Your task to perform on an android device: Set the phone to "Do not disturb". Image 0: 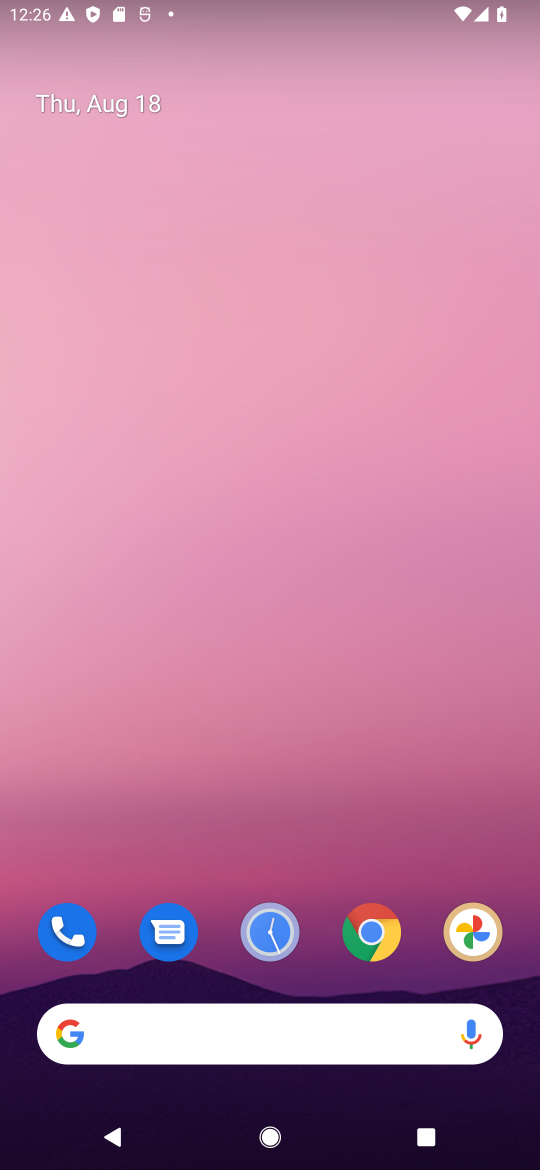
Step 0: drag from (301, 802) to (276, 299)
Your task to perform on an android device: Set the phone to "Do not disturb". Image 1: 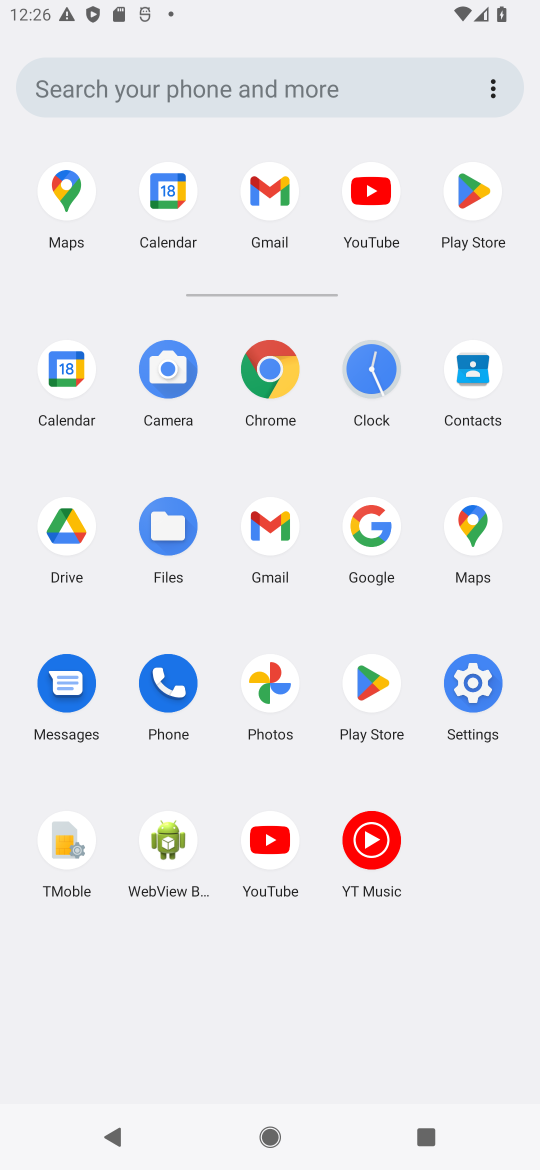
Step 1: click (475, 680)
Your task to perform on an android device: Set the phone to "Do not disturb". Image 2: 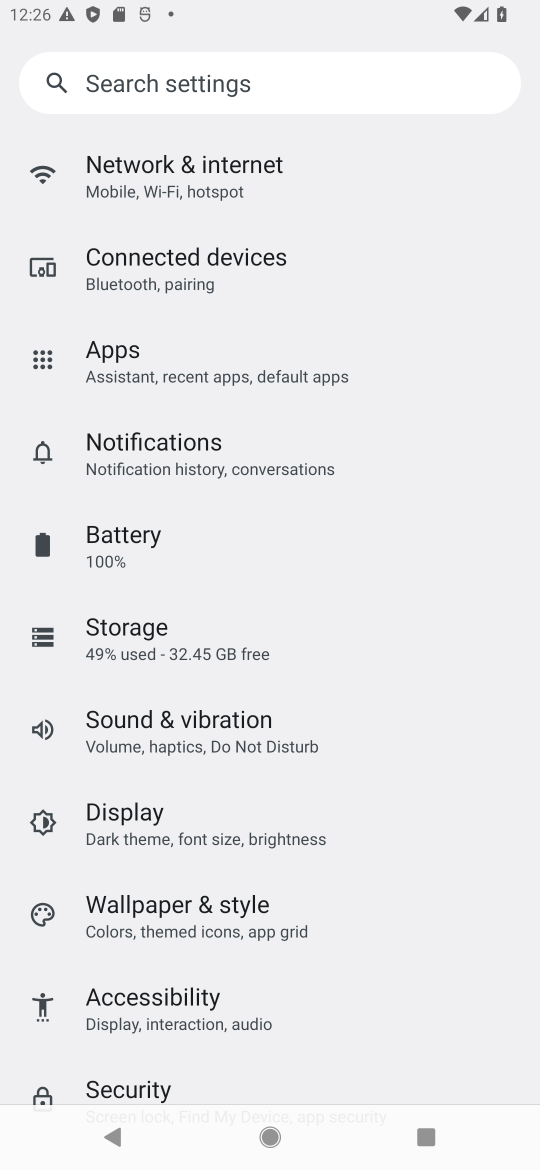
Step 2: drag from (393, 891) to (393, 591)
Your task to perform on an android device: Set the phone to "Do not disturb". Image 3: 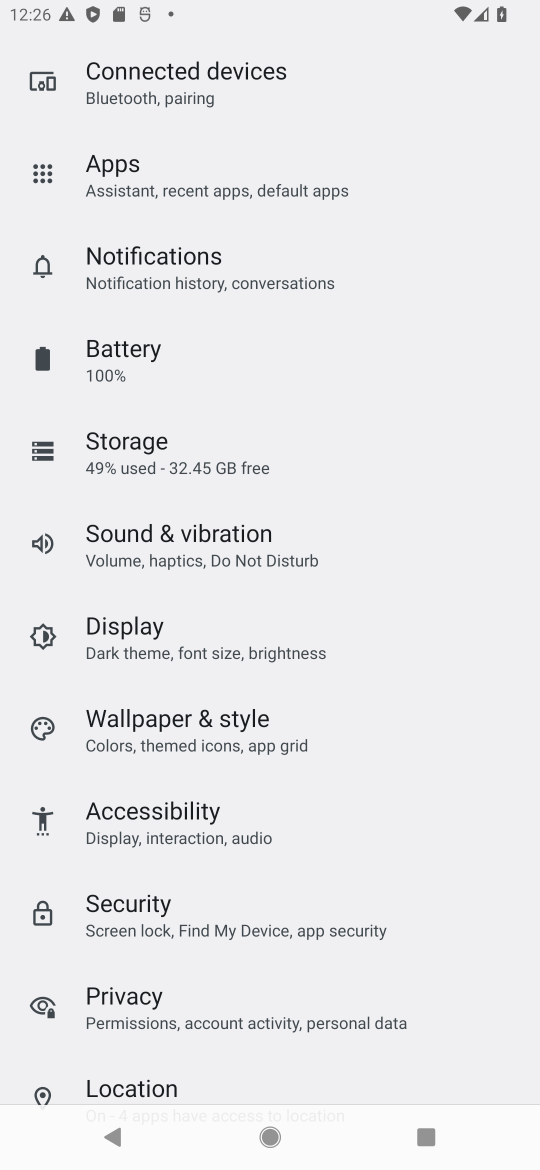
Step 3: click (178, 537)
Your task to perform on an android device: Set the phone to "Do not disturb". Image 4: 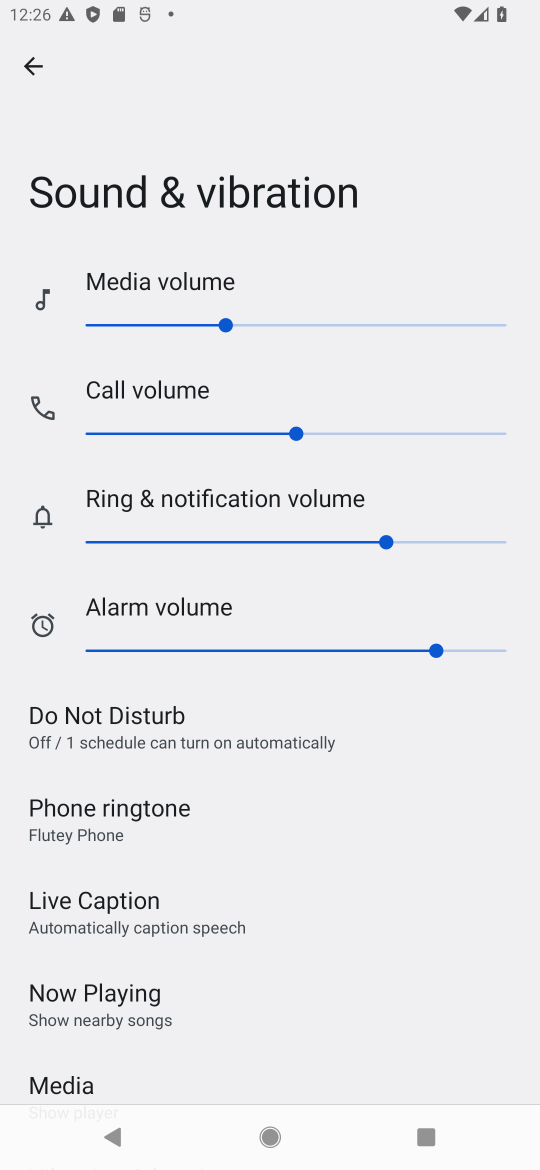
Step 4: click (91, 702)
Your task to perform on an android device: Set the phone to "Do not disturb". Image 5: 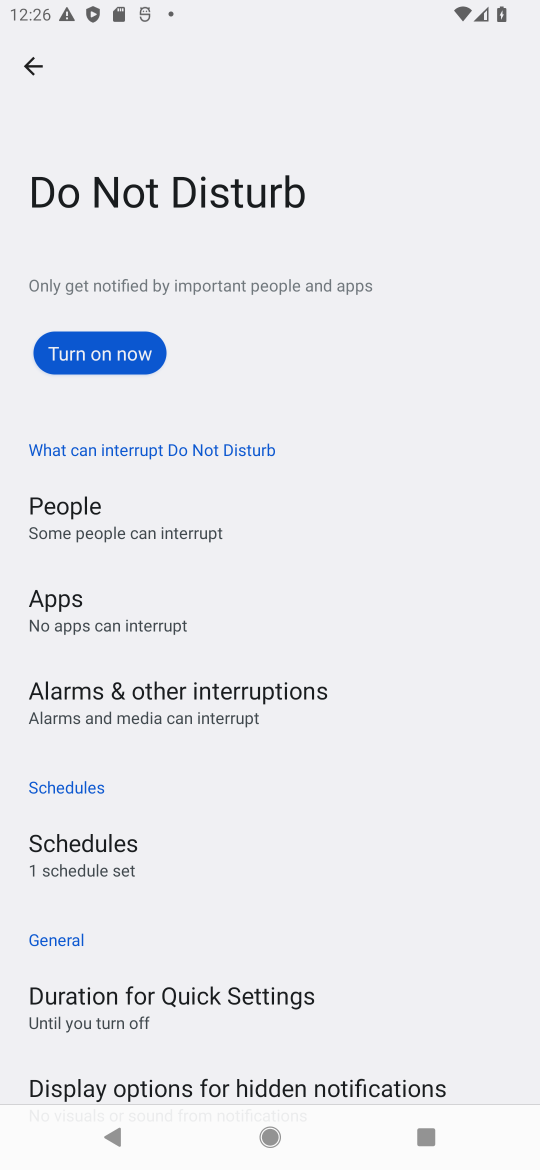
Step 5: click (91, 353)
Your task to perform on an android device: Set the phone to "Do not disturb". Image 6: 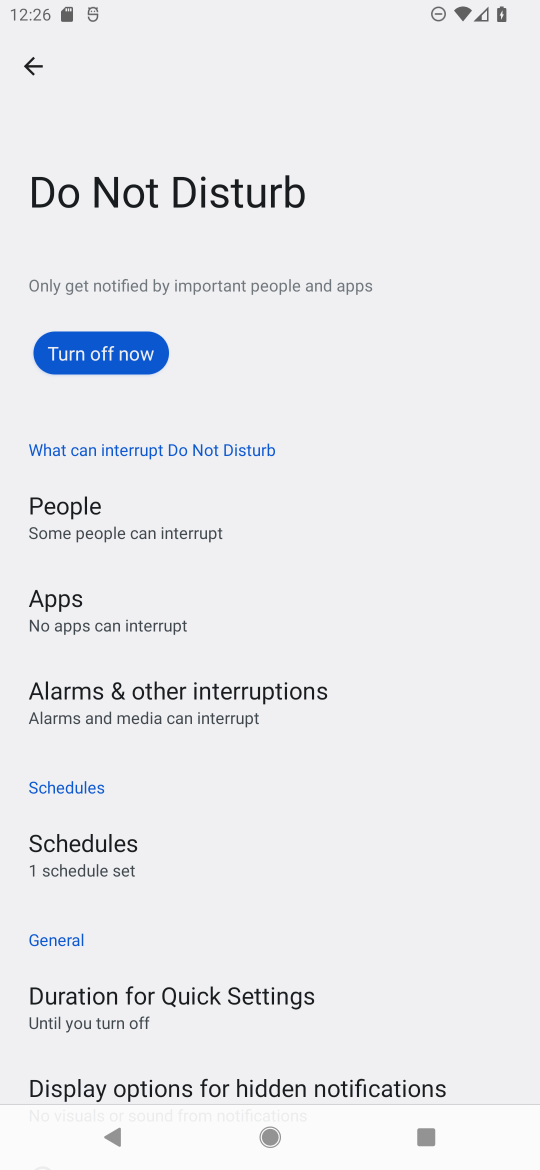
Step 6: task complete